Your task to perform on an android device: turn on notifications settings in the gmail app Image 0: 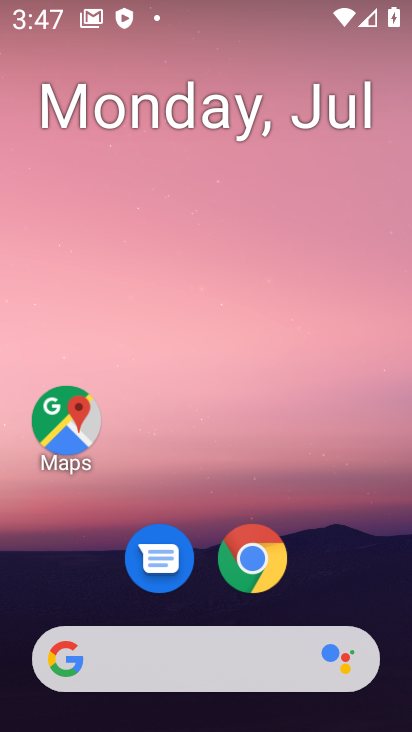
Step 0: drag from (205, 574) to (224, 27)
Your task to perform on an android device: turn on notifications settings in the gmail app Image 1: 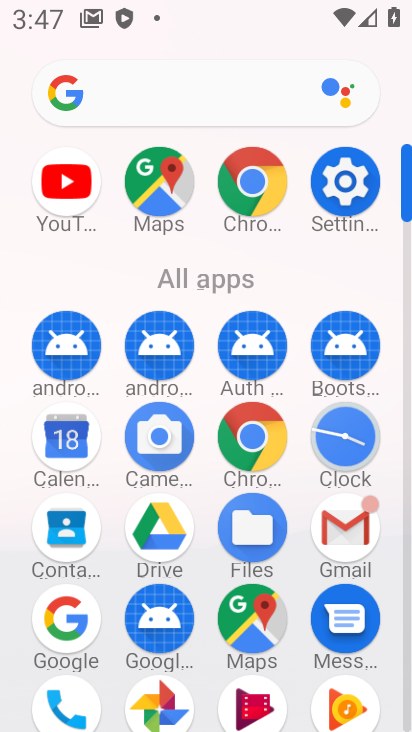
Step 1: click (334, 522)
Your task to perform on an android device: turn on notifications settings in the gmail app Image 2: 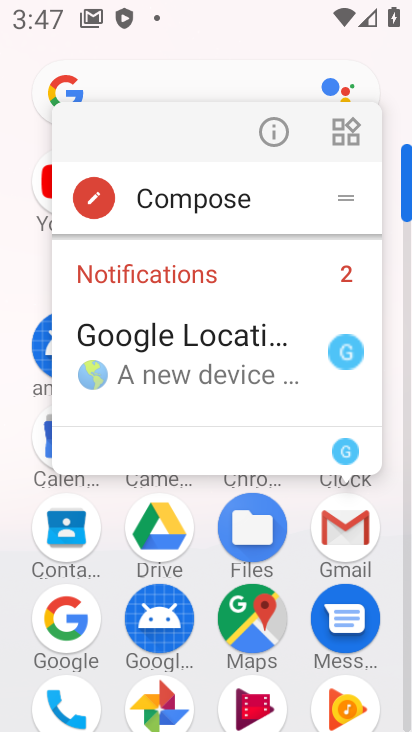
Step 2: click (280, 128)
Your task to perform on an android device: turn on notifications settings in the gmail app Image 3: 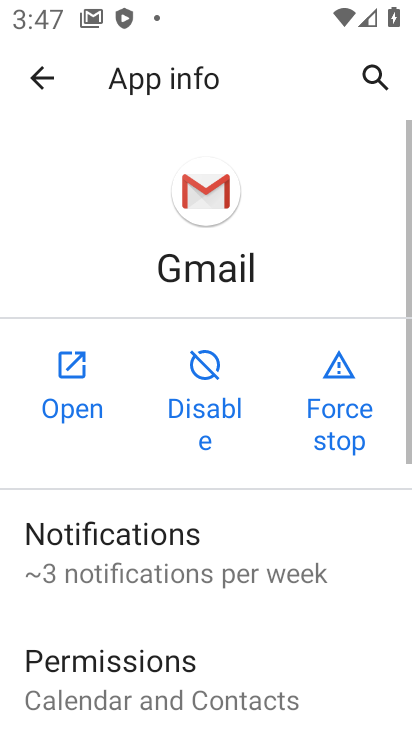
Step 3: click (113, 555)
Your task to perform on an android device: turn on notifications settings in the gmail app Image 4: 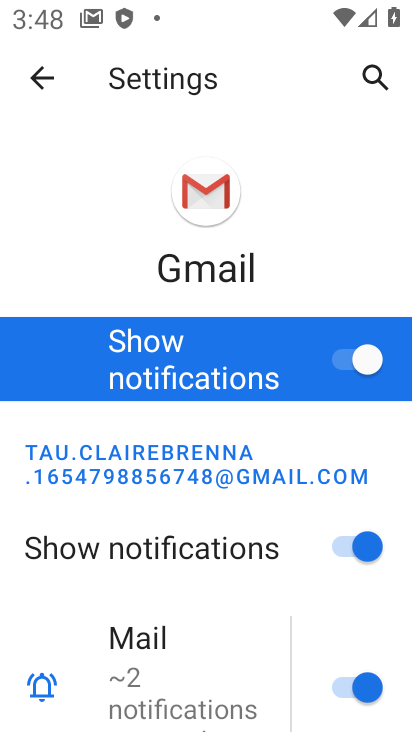
Step 4: task complete